Your task to perform on an android device: How big is the earth? Image 0: 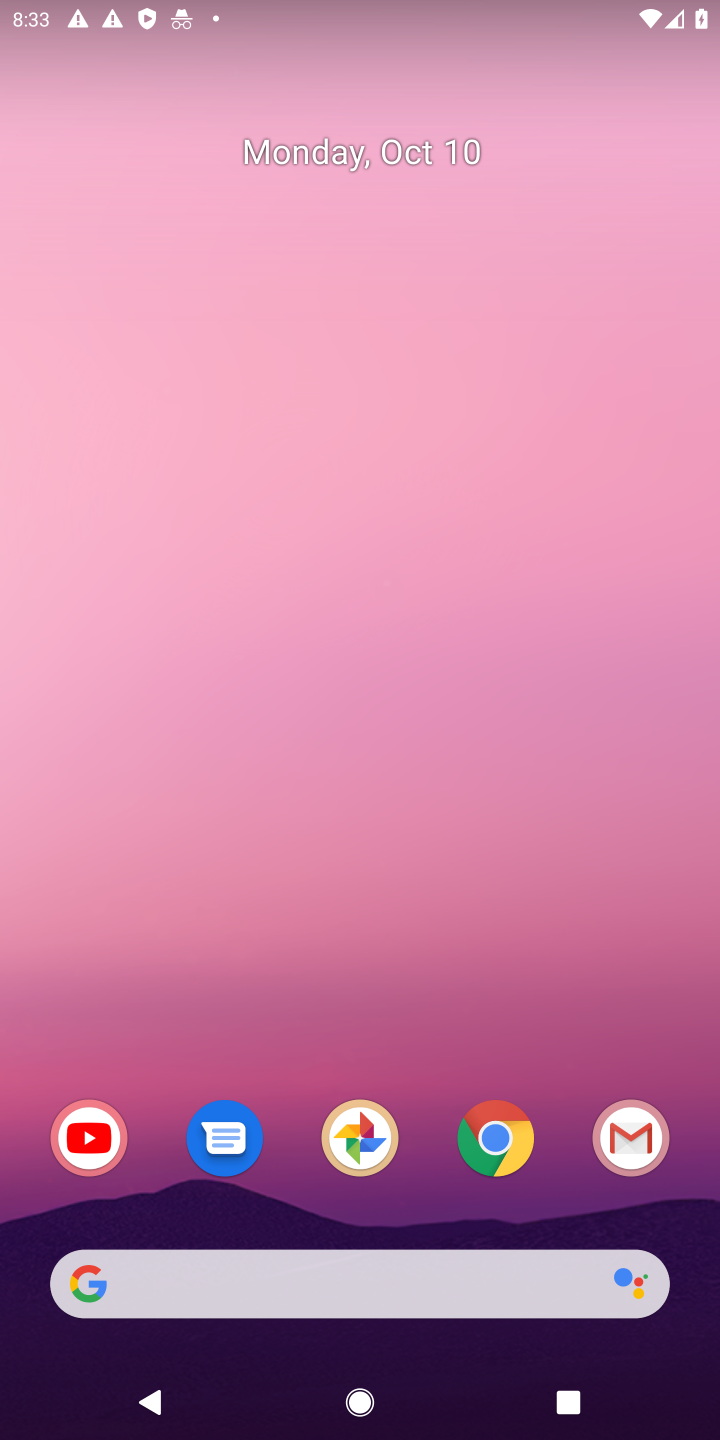
Step 0: click (497, 1135)
Your task to perform on an android device: How big is the earth? Image 1: 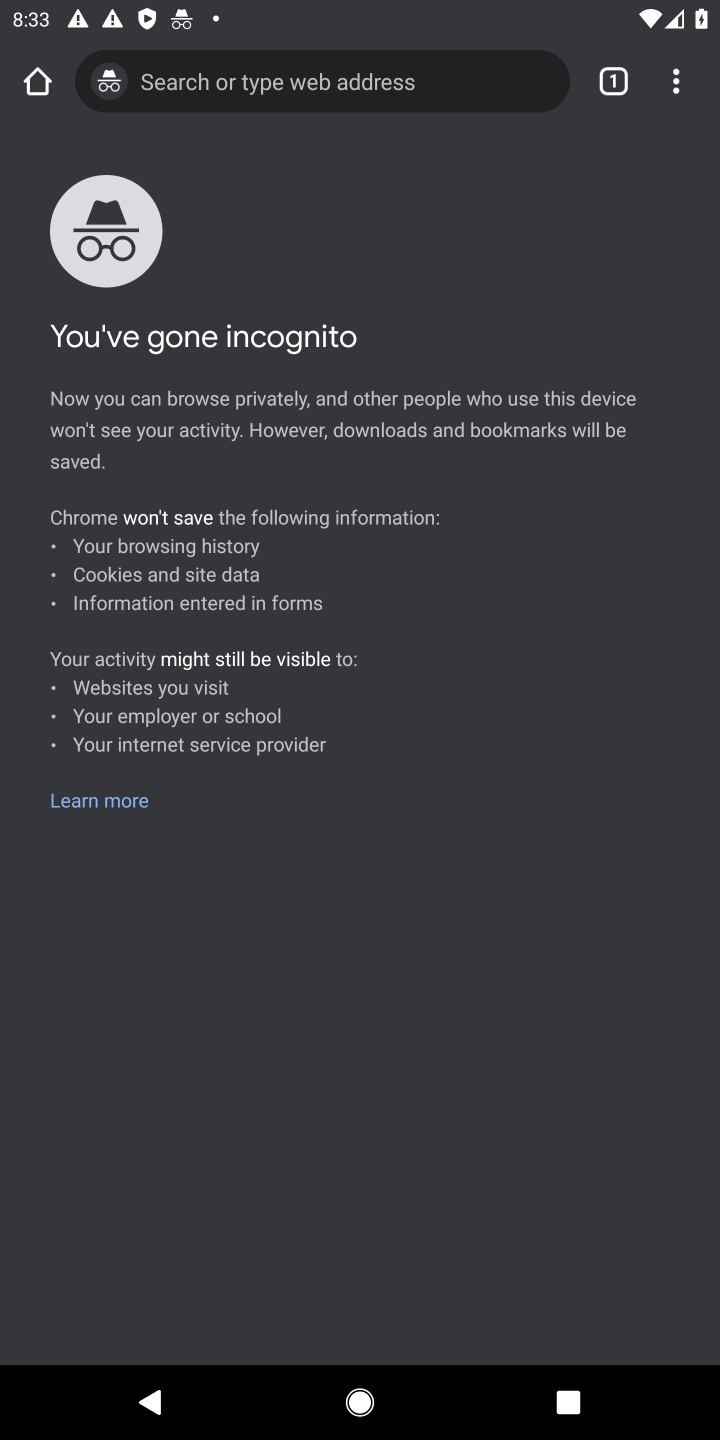
Step 1: click (350, 85)
Your task to perform on an android device: How big is the earth? Image 2: 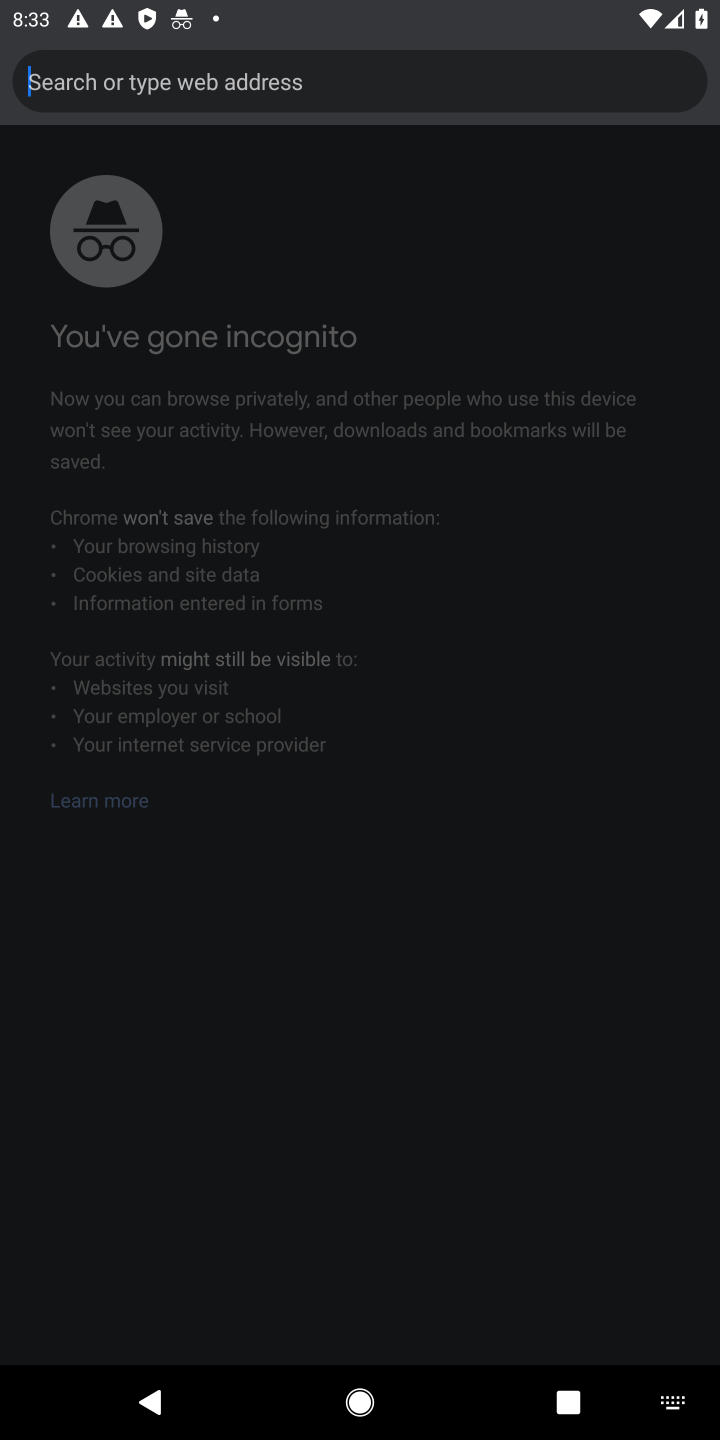
Step 2: type "How big is the earth"
Your task to perform on an android device: How big is the earth? Image 3: 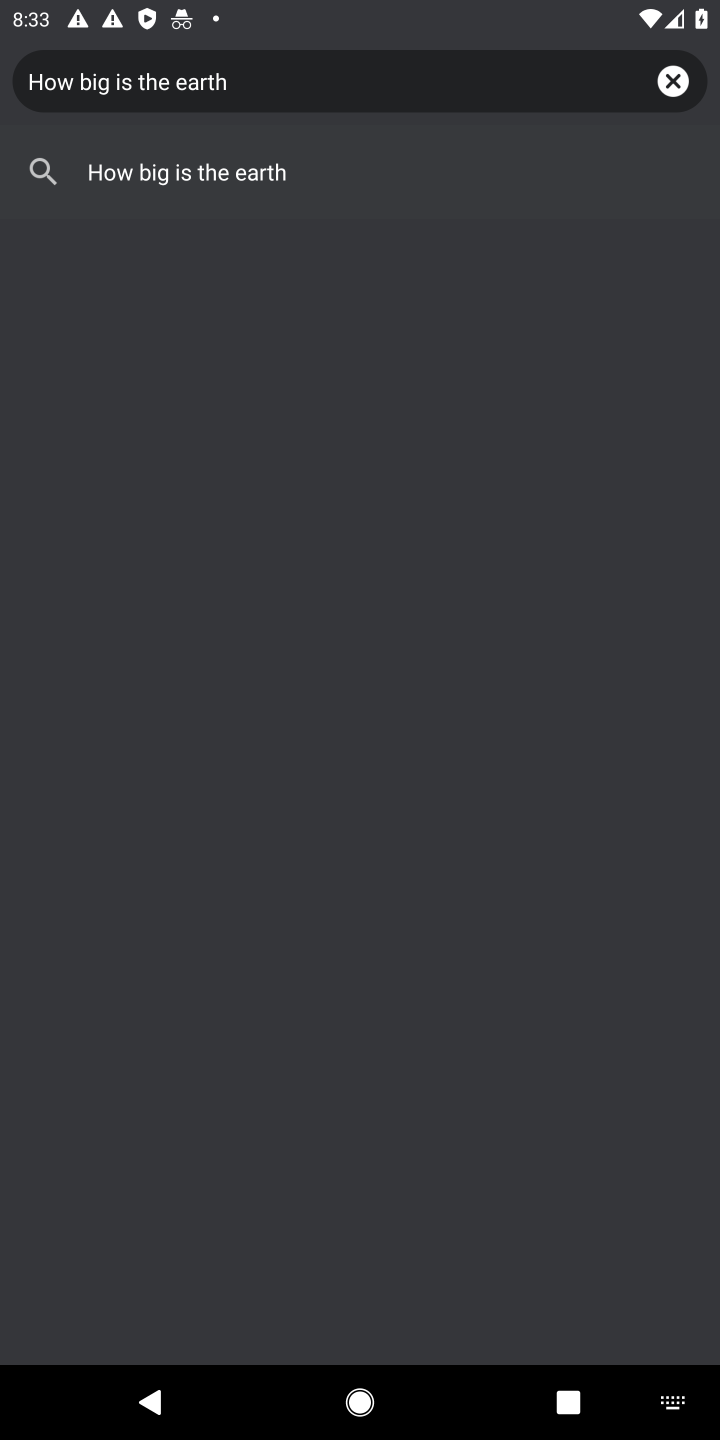
Step 3: click (274, 181)
Your task to perform on an android device: How big is the earth? Image 4: 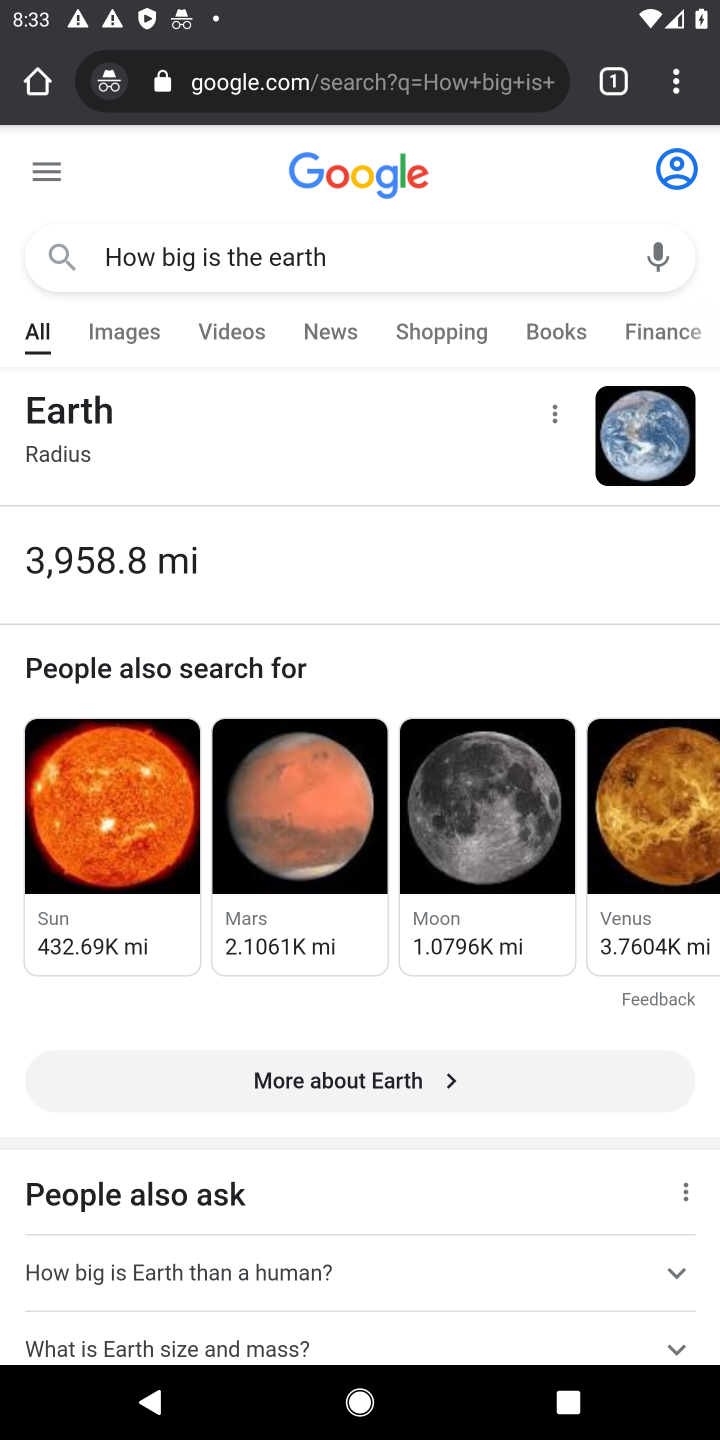
Step 4: task complete